Your task to perform on an android device: Open maps Image 0: 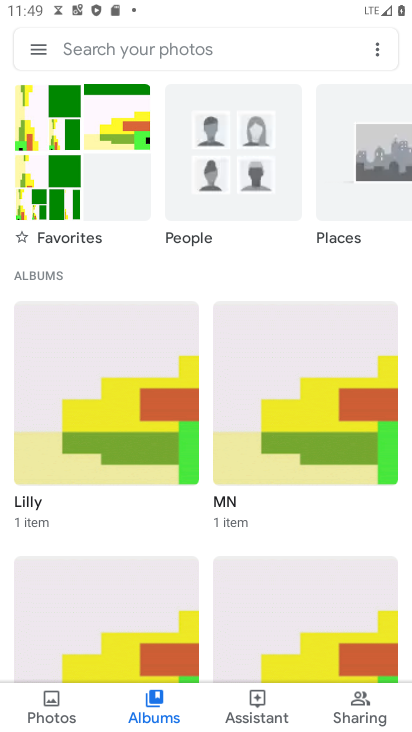
Step 0: press home button
Your task to perform on an android device: Open maps Image 1: 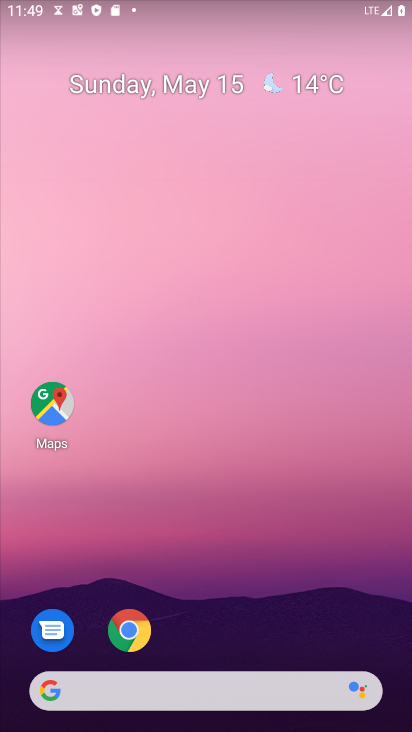
Step 1: click (52, 409)
Your task to perform on an android device: Open maps Image 2: 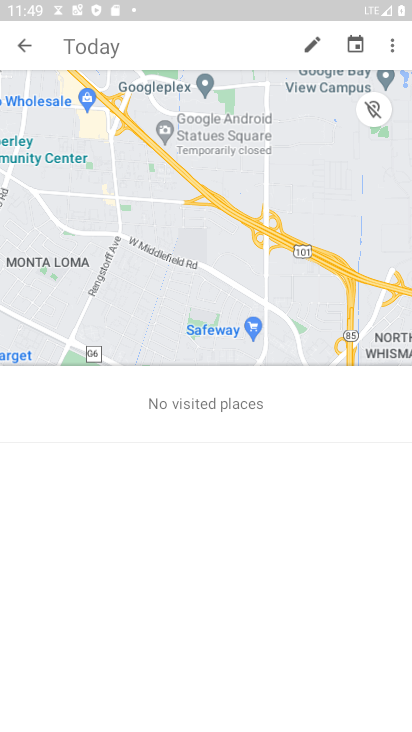
Step 2: click (23, 54)
Your task to perform on an android device: Open maps Image 3: 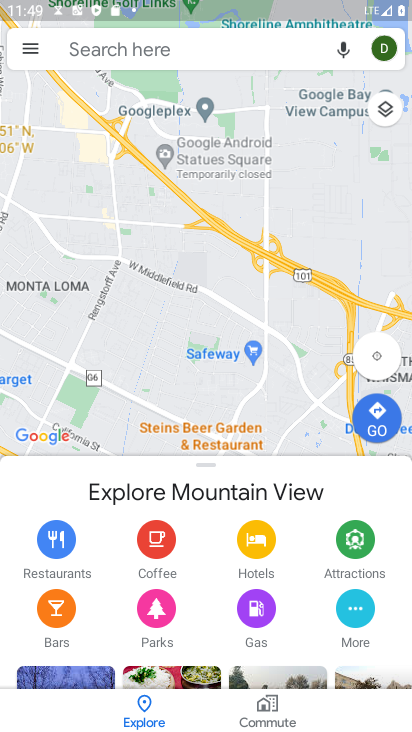
Step 3: task complete